Your task to perform on an android device: When is my next appointment? Image 0: 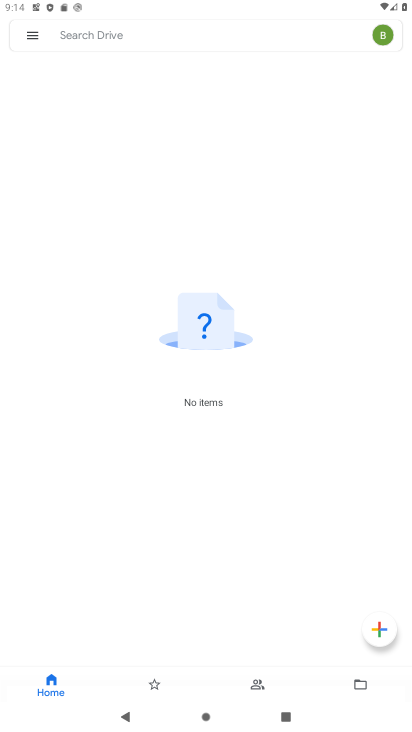
Step 0: press home button
Your task to perform on an android device: When is my next appointment? Image 1: 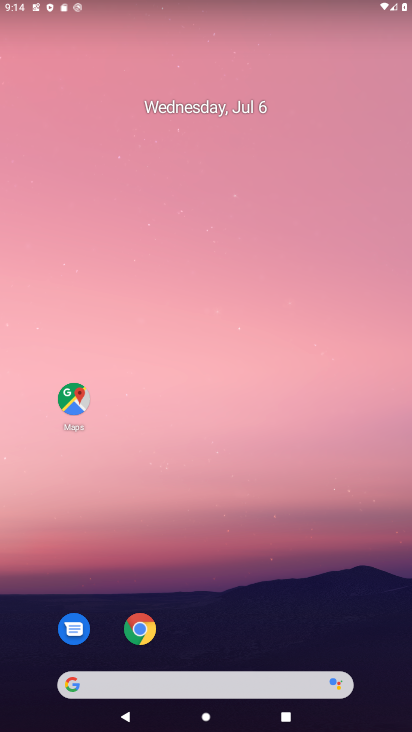
Step 1: drag from (242, 616) to (222, 143)
Your task to perform on an android device: When is my next appointment? Image 2: 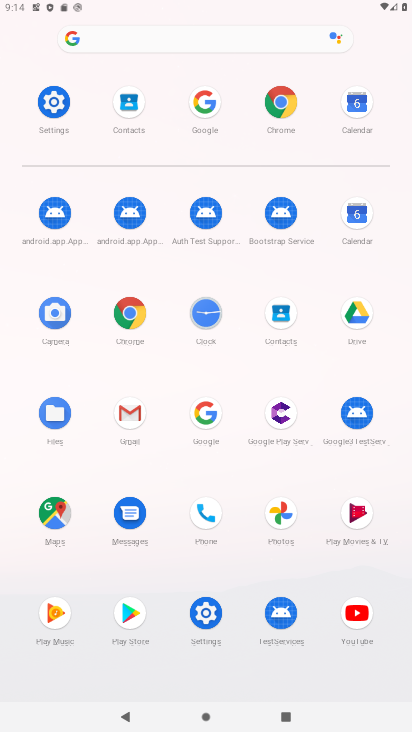
Step 2: click (354, 206)
Your task to perform on an android device: When is my next appointment? Image 3: 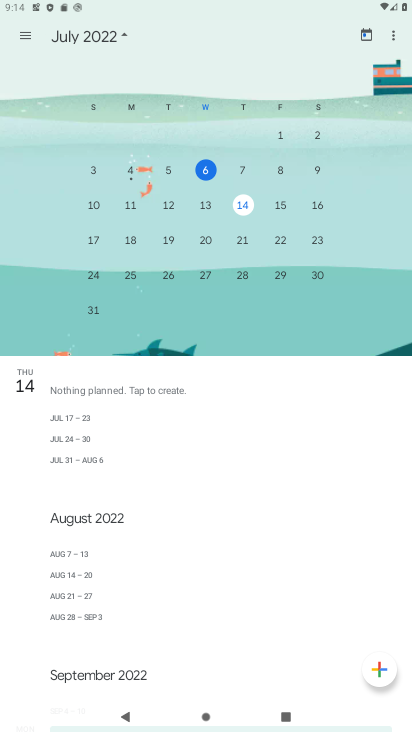
Step 3: click (289, 168)
Your task to perform on an android device: When is my next appointment? Image 4: 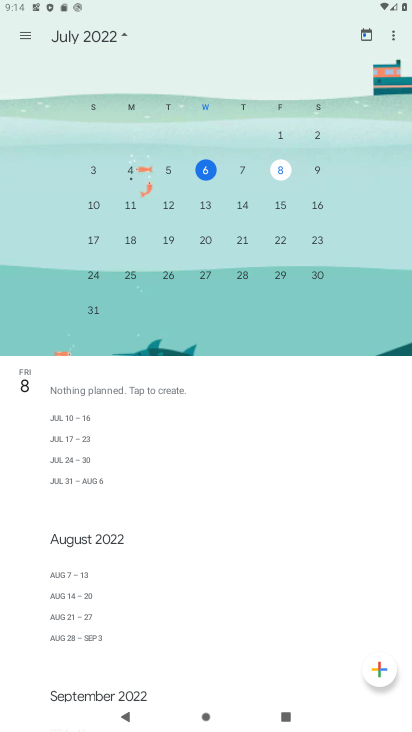
Step 4: task complete